Your task to perform on an android device: turn off data saver in the chrome app Image 0: 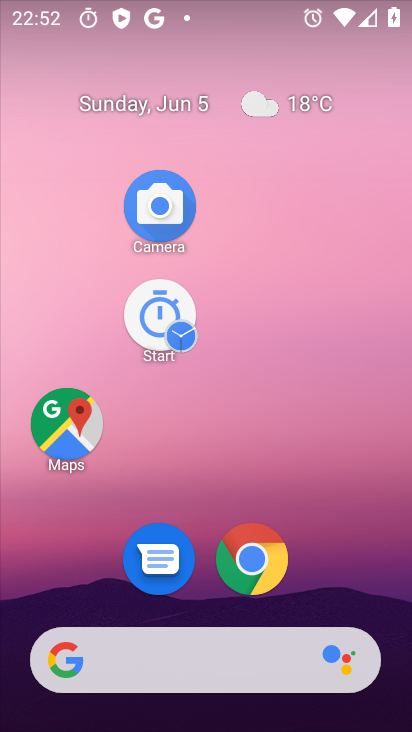
Step 0: drag from (202, 590) to (130, 225)
Your task to perform on an android device: turn off data saver in the chrome app Image 1: 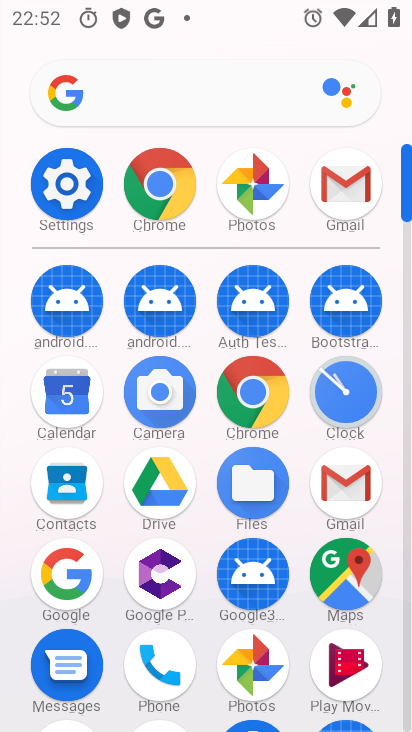
Step 1: click (161, 188)
Your task to perform on an android device: turn off data saver in the chrome app Image 2: 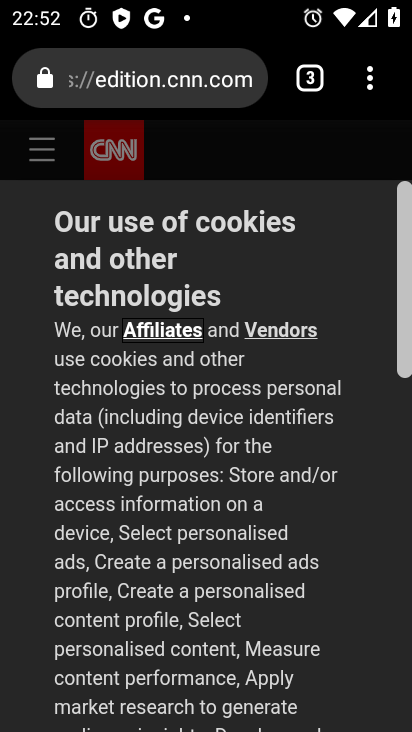
Step 2: press back button
Your task to perform on an android device: turn off data saver in the chrome app Image 3: 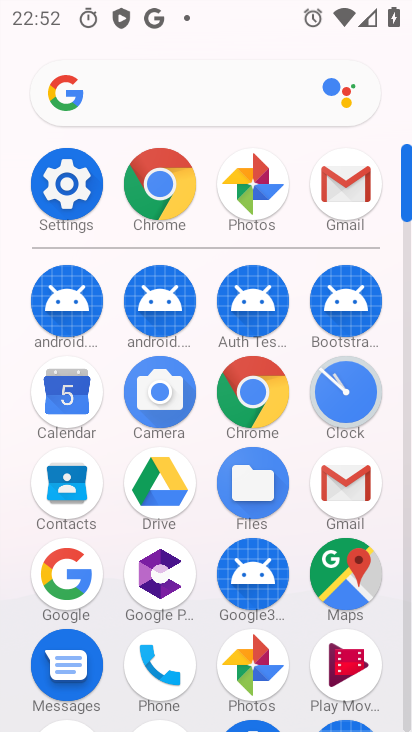
Step 3: click (158, 191)
Your task to perform on an android device: turn off data saver in the chrome app Image 4: 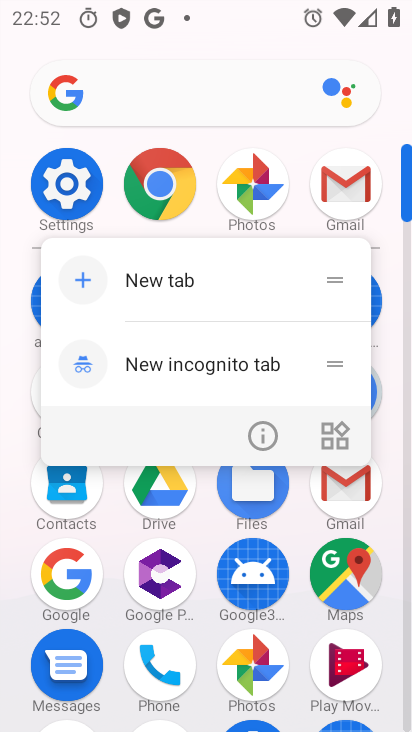
Step 4: click (158, 199)
Your task to perform on an android device: turn off data saver in the chrome app Image 5: 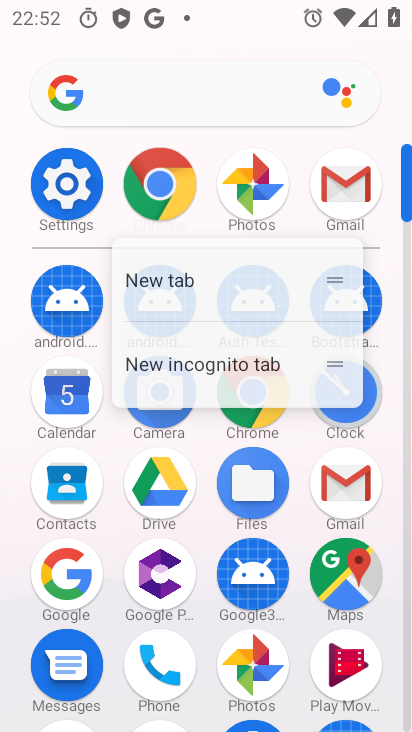
Step 5: click (158, 199)
Your task to perform on an android device: turn off data saver in the chrome app Image 6: 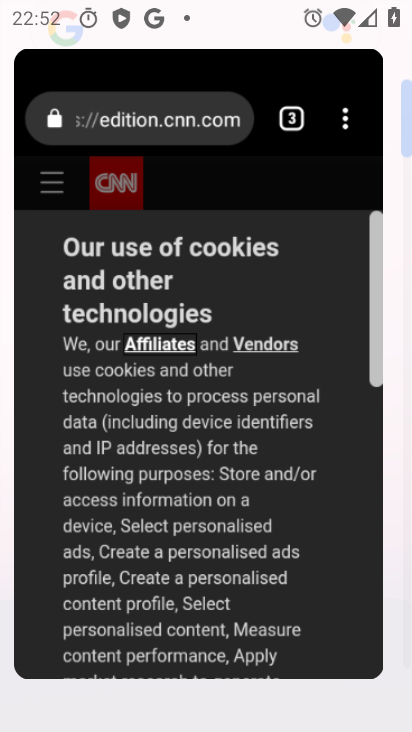
Step 6: click (158, 199)
Your task to perform on an android device: turn off data saver in the chrome app Image 7: 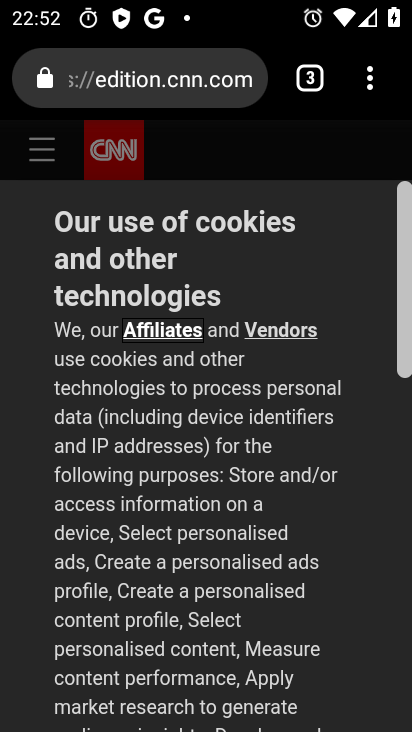
Step 7: drag from (366, 84) to (104, 653)
Your task to perform on an android device: turn off data saver in the chrome app Image 8: 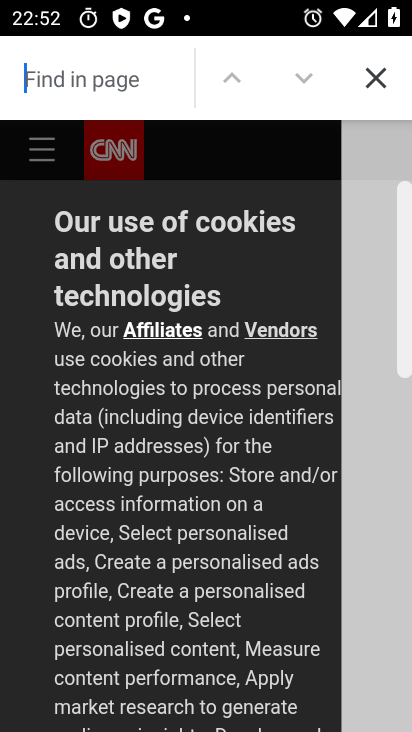
Step 8: drag from (193, 579) to (137, 180)
Your task to perform on an android device: turn off data saver in the chrome app Image 9: 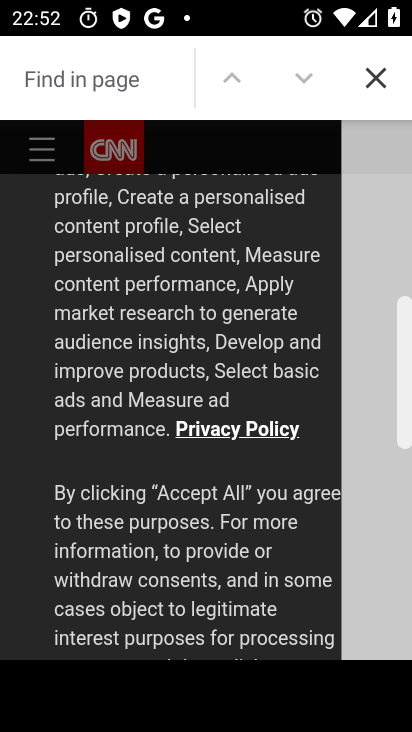
Step 9: click (365, 72)
Your task to perform on an android device: turn off data saver in the chrome app Image 10: 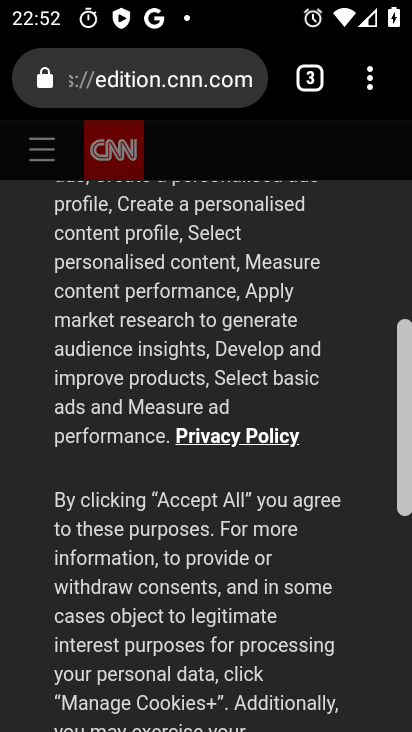
Step 10: click (365, 66)
Your task to perform on an android device: turn off data saver in the chrome app Image 11: 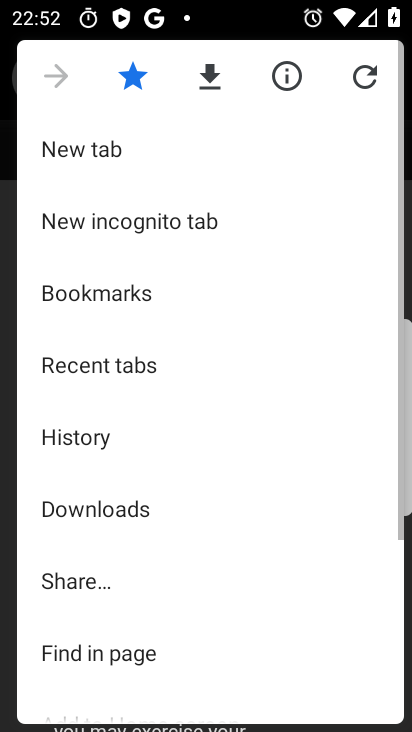
Step 11: drag from (124, 561) to (95, 193)
Your task to perform on an android device: turn off data saver in the chrome app Image 12: 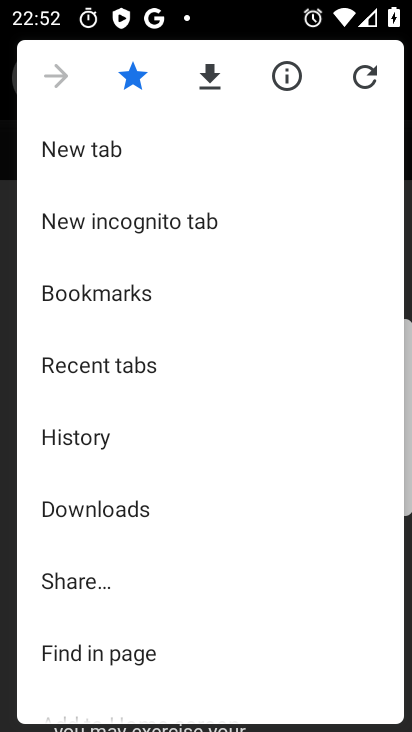
Step 12: drag from (161, 443) to (161, 207)
Your task to perform on an android device: turn off data saver in the chrome app Image 13: 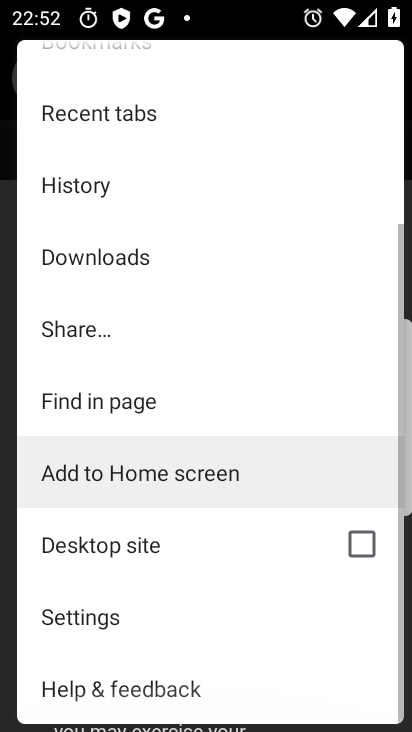
Step 13: drag from (179, 548) to (142, 239)
Your task to perform on an android device: turn off data saver in the chrome app Image 14: 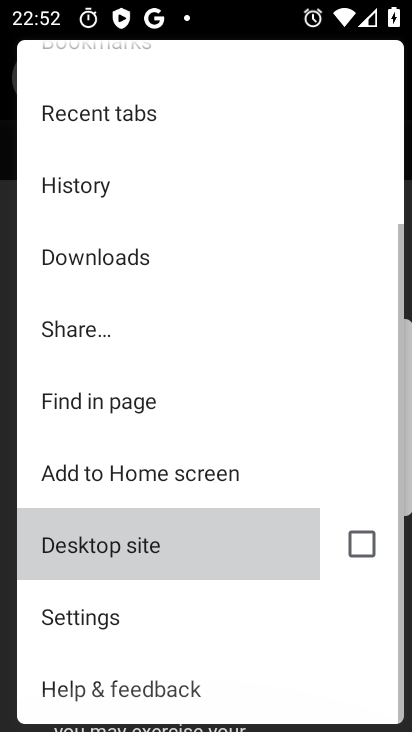
Step 14: drag from (143, 520) to (133, 194)
Your task to perform on an android device: turn off data saver in the chrome app Image 15: 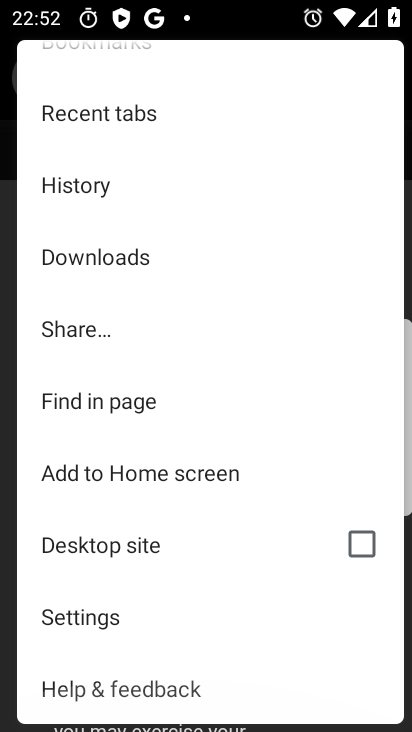
Step 15: drag from (181, 616) to (166, 236)
Your task to perform on an android device: turn off data saver in the chrome app Image 16: 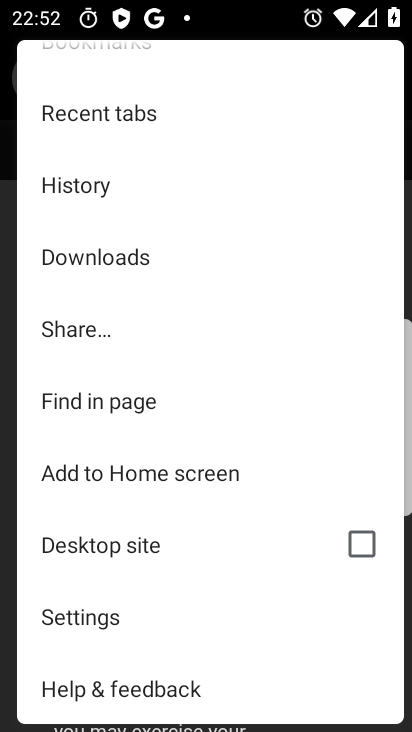
Step 16: click (84, 617)
Your task to perform on an android device: turn off data saver in the chrome app Image 17: 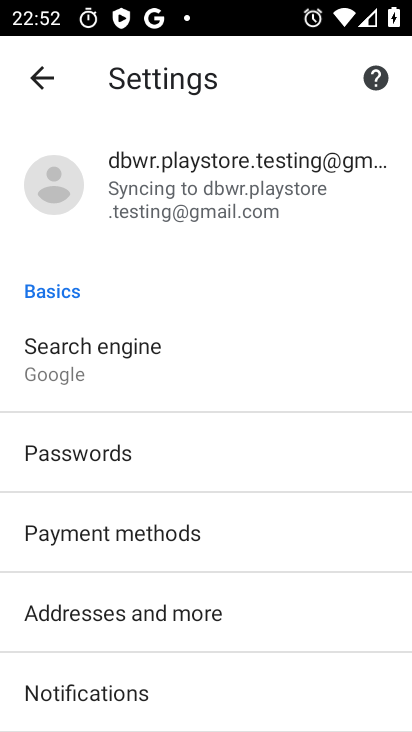
Step 17: drag from (49, 562) to (104, 265)
Your task to perform on an android device: turn off data saver in the chrome app Image 18: 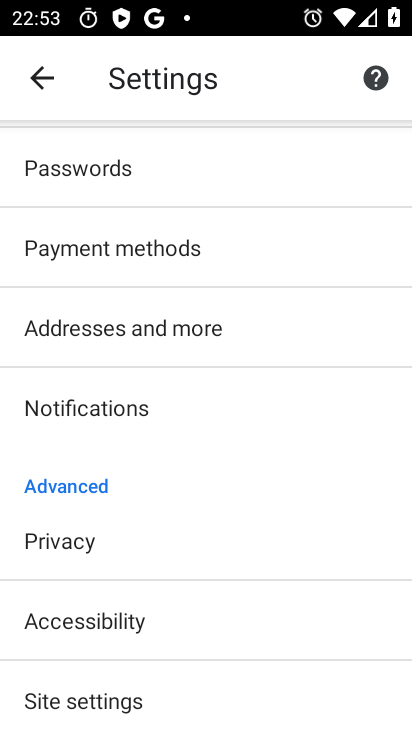
Step 18: drag from (172, 603) to (182, 235)
Your task to perform on an android device: turn off data saver in the chrome app Image 19: 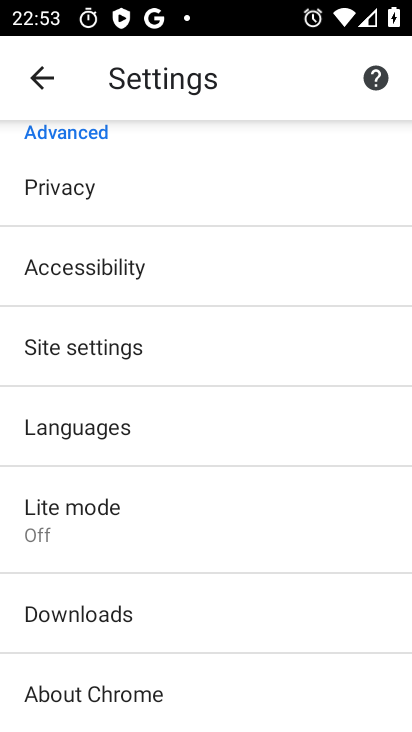
Step 19: click (64, 348)
Your task to perform on an android device: turn off data saver in the chrome app Image 20: 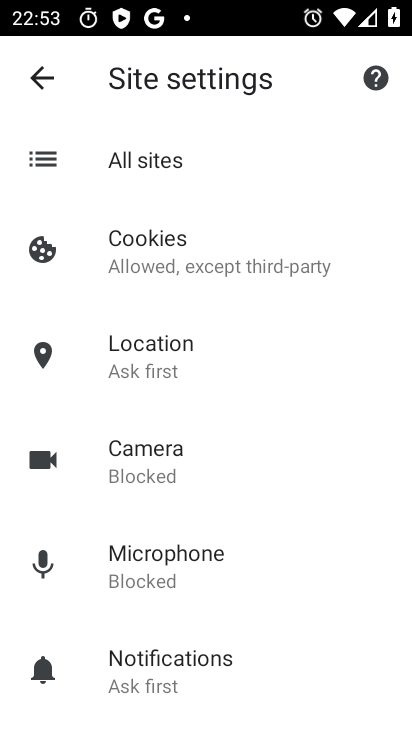
Step 20: click (34, 82)
Your task to perform on an android device: turn off data saver in the chrome app Image 21: 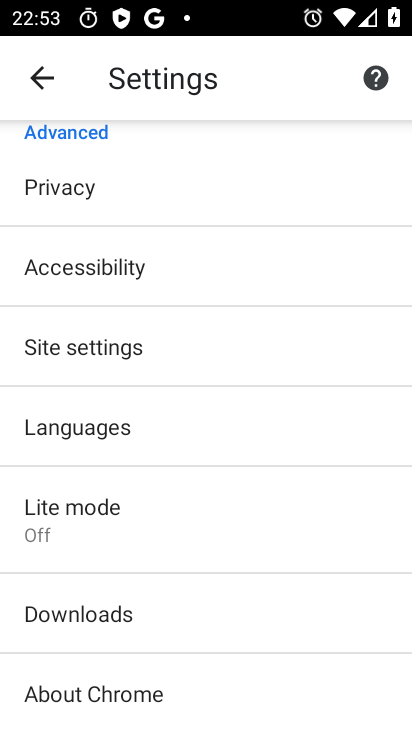
Step 21: click (74, 509)
Your task to perform on an android device: turn off data saver in the chrome app Image 22: 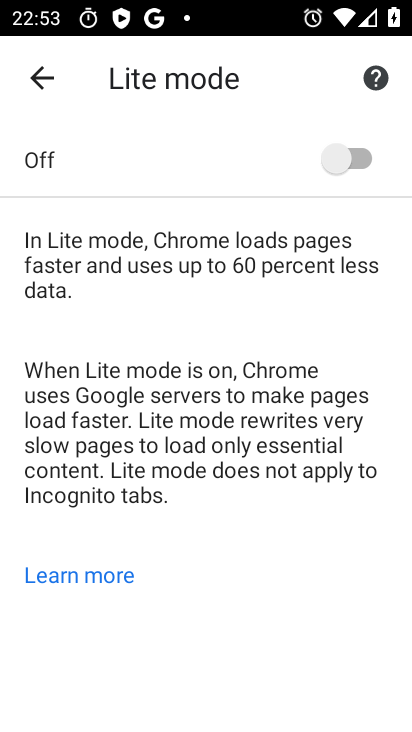
Step 22: task complete